Your task to perform on an android device: open sync settings in chrome Image 0: 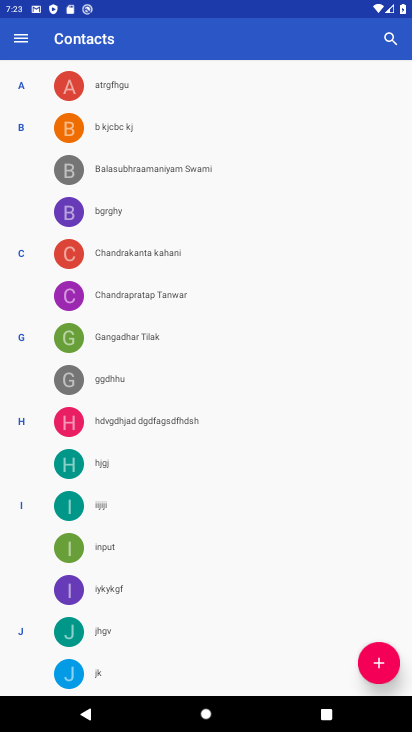
Step 0: press home button
Your task to perform on an android device: open sync settings in chrome Image 1: 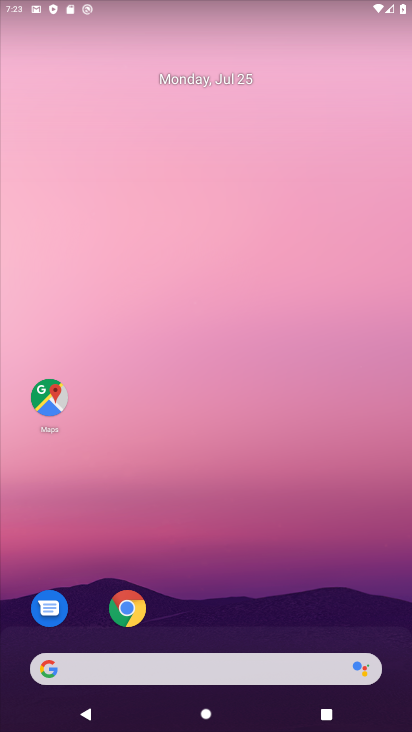
Step 1: click (123, 615)
Your task to perform on an android device: open sync settings in chrome Image 2: 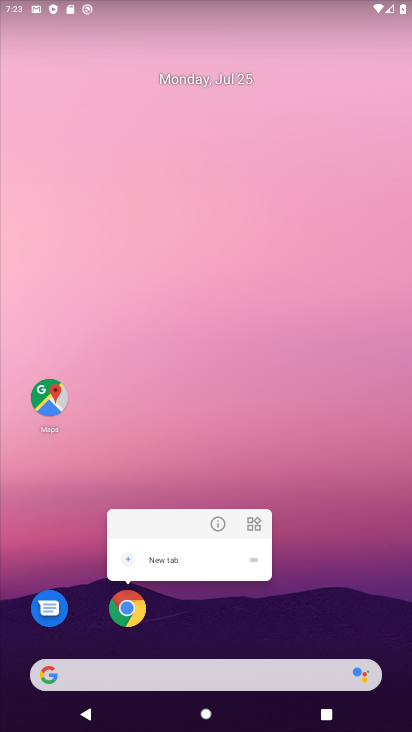
Step 2: click (123, 615)
Your task to perform on an android device: open sync settings in chrome Image 3: 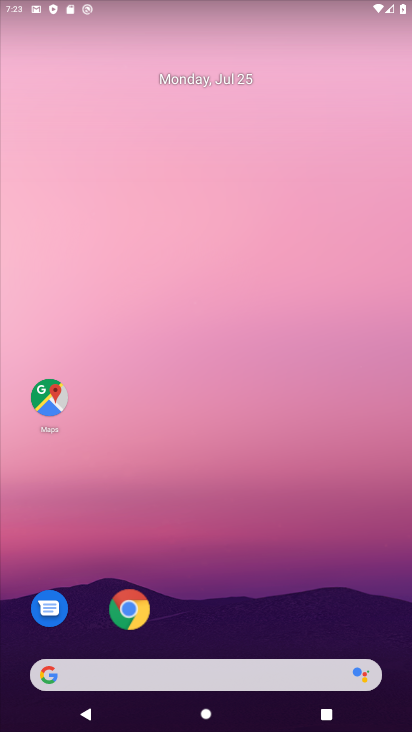
Step 3: click (123, 615)
Your task to perform on an android device: open sync settings in chrome Image 4: 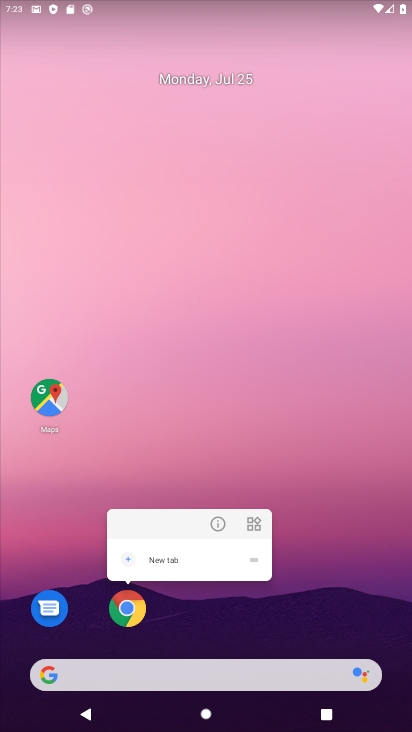
Step 4: click (123, 615)
Your task to perform on an android device: open sync settings in chrome Image 5: 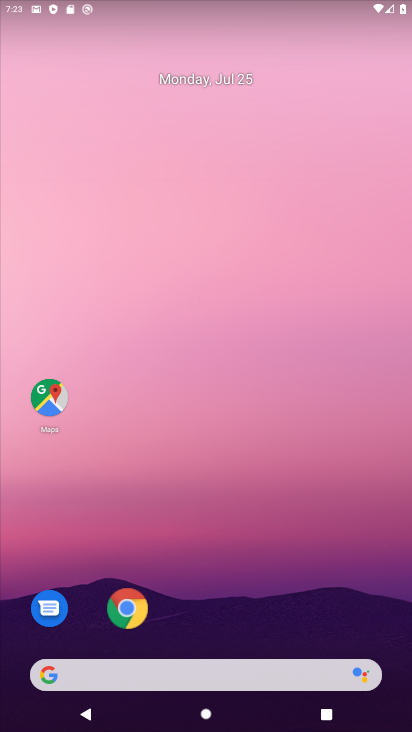
Step 5: click (123, 615)
Your task to perform on an android device: open sync settings in chrome Image 6: 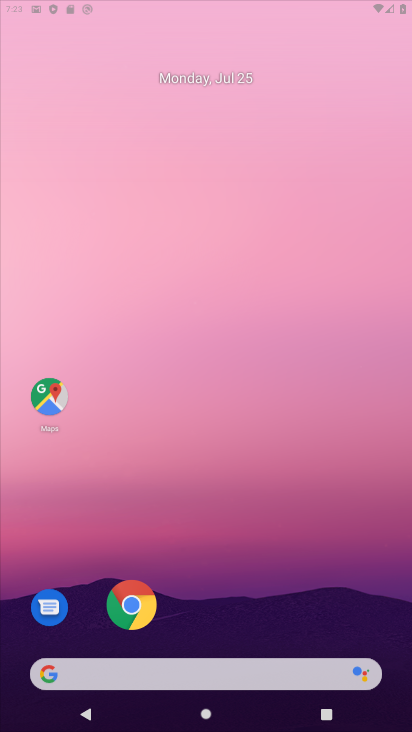
Step 6: click (123, 615)
Your task to perform on an android device: open sync settings in chrome Image 7: 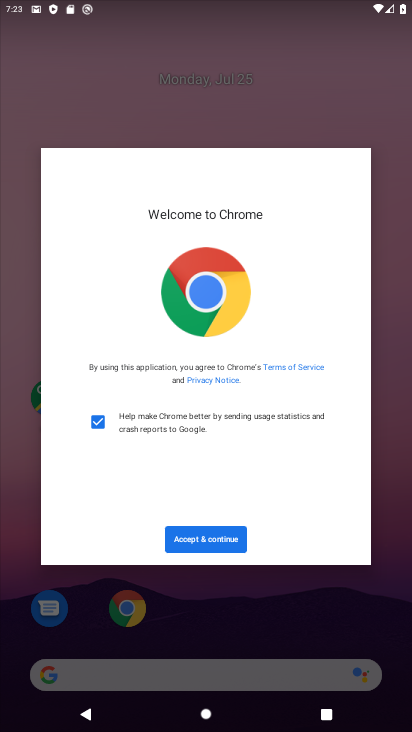
Step 7: click (205, 538)
Your task to perform on an android device: open sync settings in chrome Image 8: 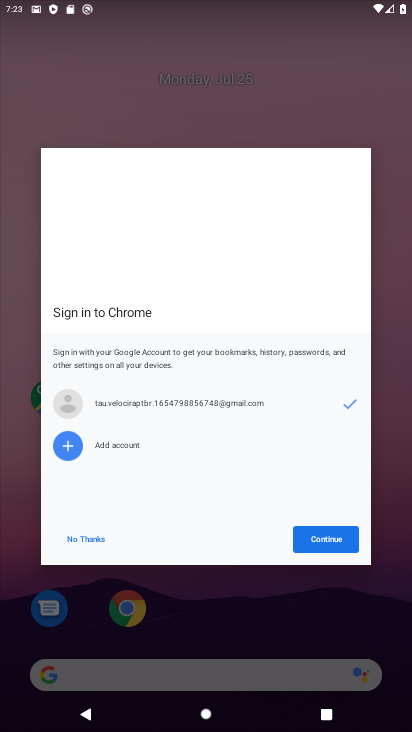
Step 8: click (323, 541)
Your task to perform on an android device: open sync settings in chrome Image 9: 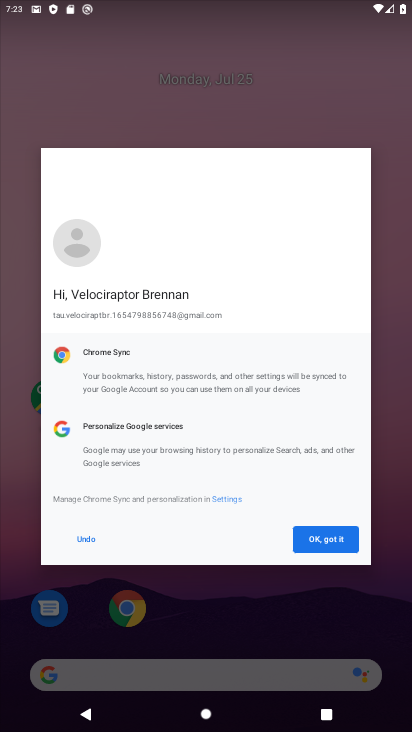
Step 9: click (323, 541)
Your task to perform on an android device: open sync settings in chrome Image 10: 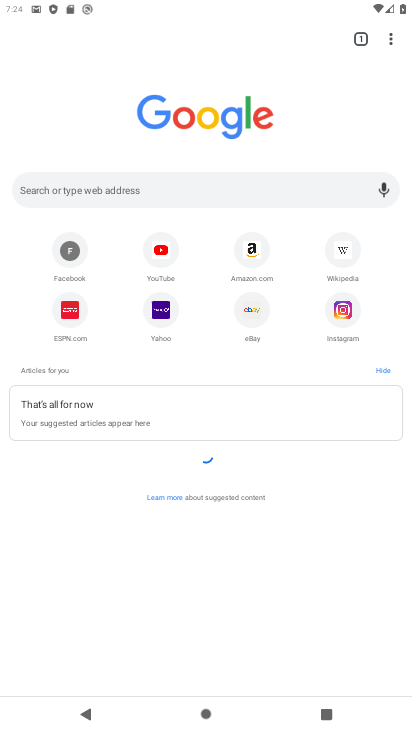
Step 10: click (388, 37)
Your task to perform on an android device: open sync settings in chrome Image 11: 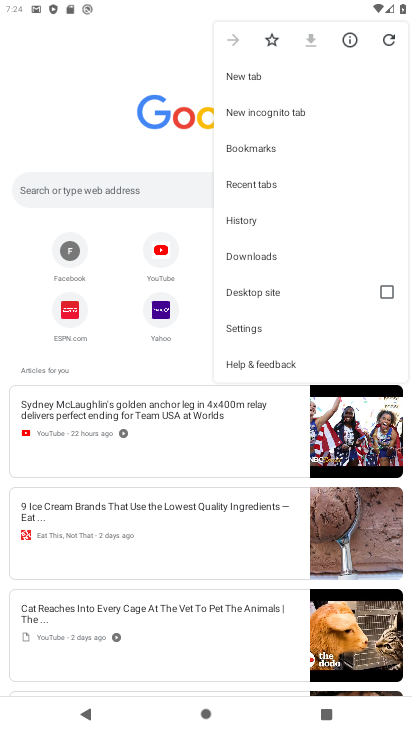
Step 11: click (252, 329)
Your task to perform on an android device: open sync settings in chrome Image 12: 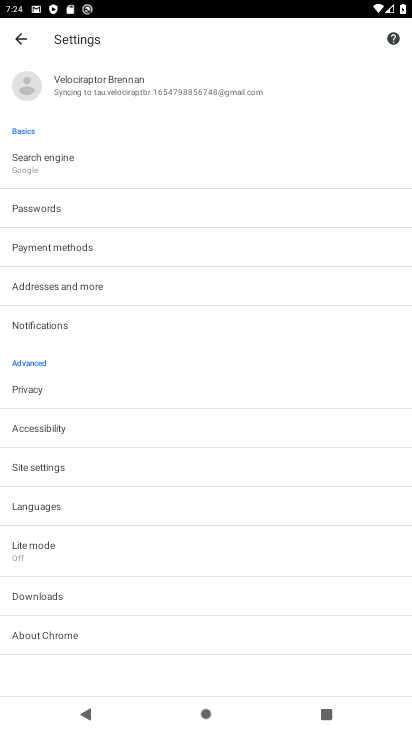
Step 12: click (94, 98)
Your task to perform on an android device: open sync settings in chrome Image 13: 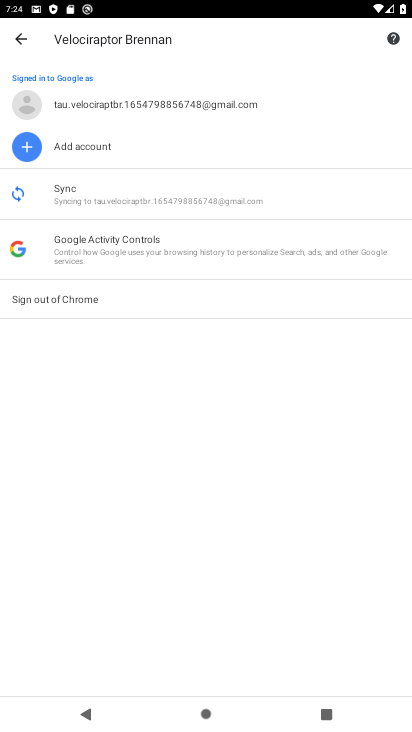
Step 13: task complete